Your task to perform on an android device: Open Youtube and go to "Your channel" Image 0: 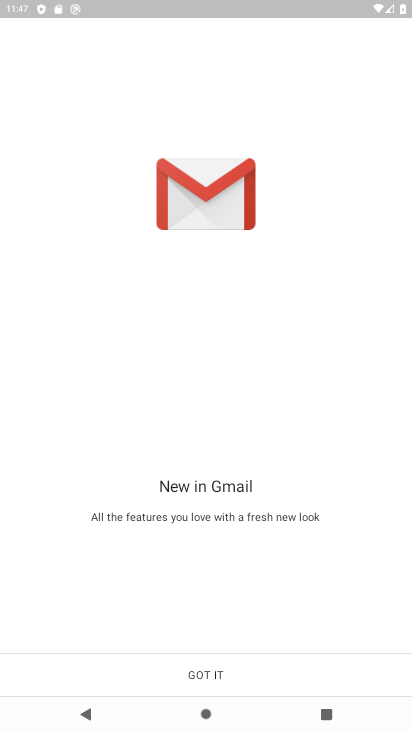
Step 0: press home button
Your task to perform on an android device: Open Youtube and go to "Your channel" Image 1: 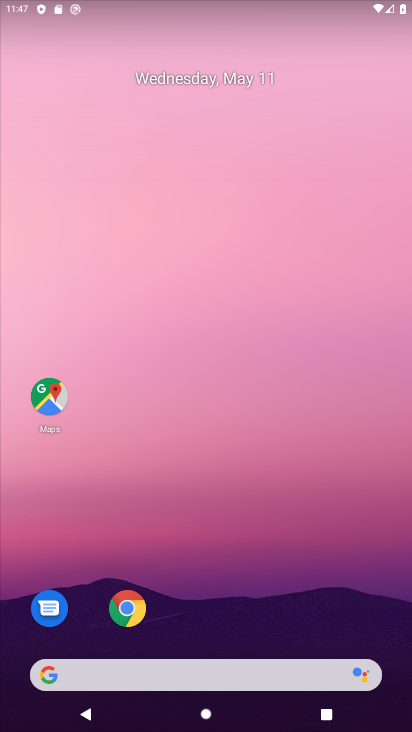
Step 1: drag from (266, 645) to (227, 39)
Your task to perform on an android device: Open Youtube and go to "Your channel" Image 2: 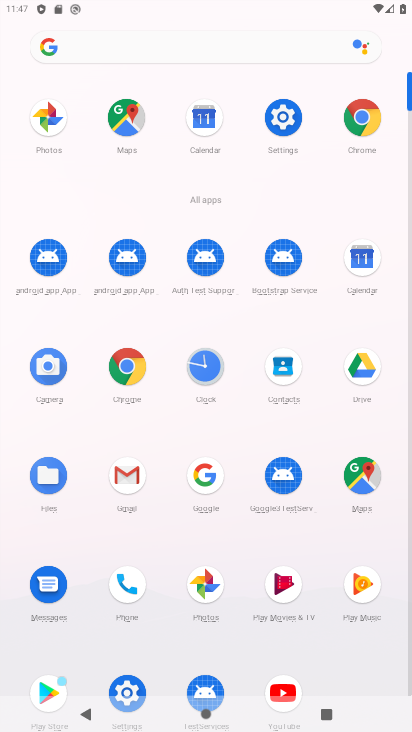
Step 2: click (288, 698)
Your task to perform on an android device: Open Youtube and go to "Your channel" Image 3: 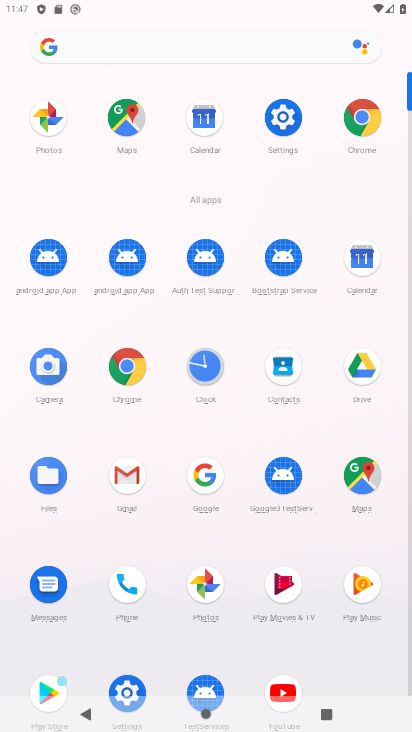
Step 3: click (288, 689)
Your task to perform on an android device: Open Youtube and go to "Your channel" Image 4: 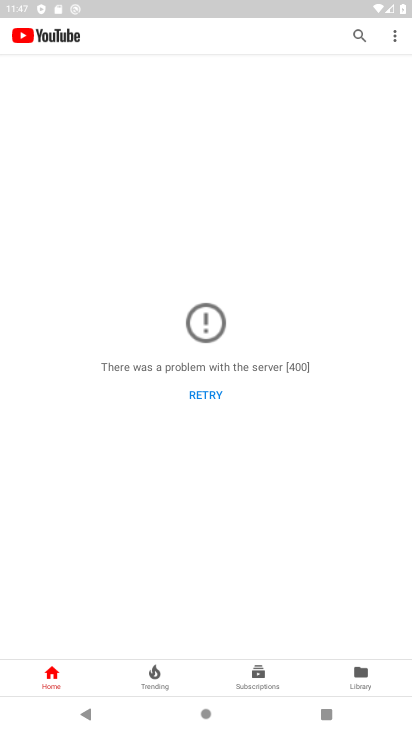
Step 4: click (360, 682)
Your task to perform on an android device: Open Youtube and go to "Your channel" Image 5: 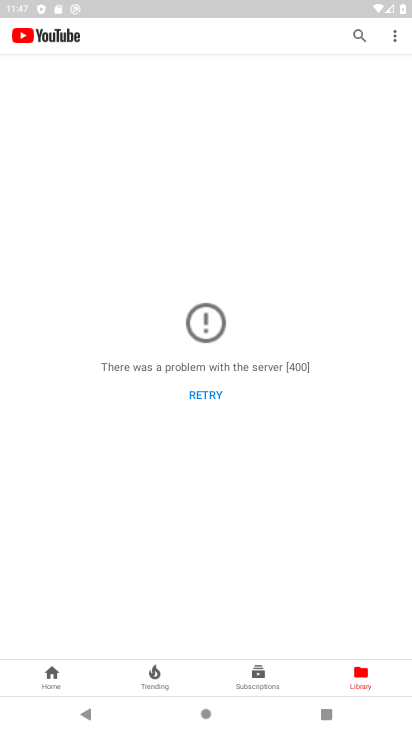
Step 5: click (52, 675)
Your task to perform on an android device: Open Youtube and go to "Your channel" Image 6: 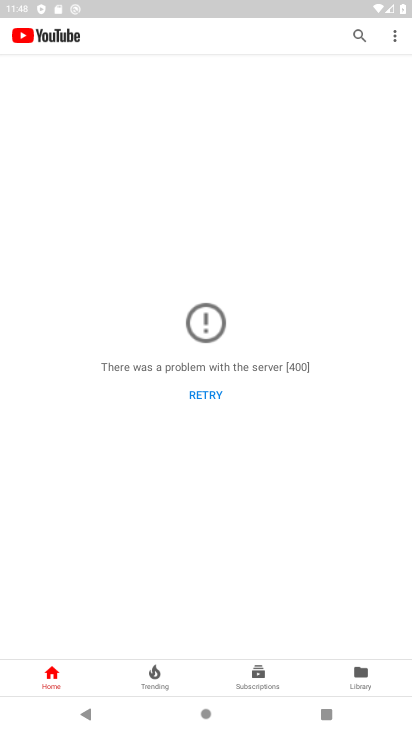
Step 6: task complete